Your task to perform on an android device: What's a good restaurant in Seattle? Image 0: 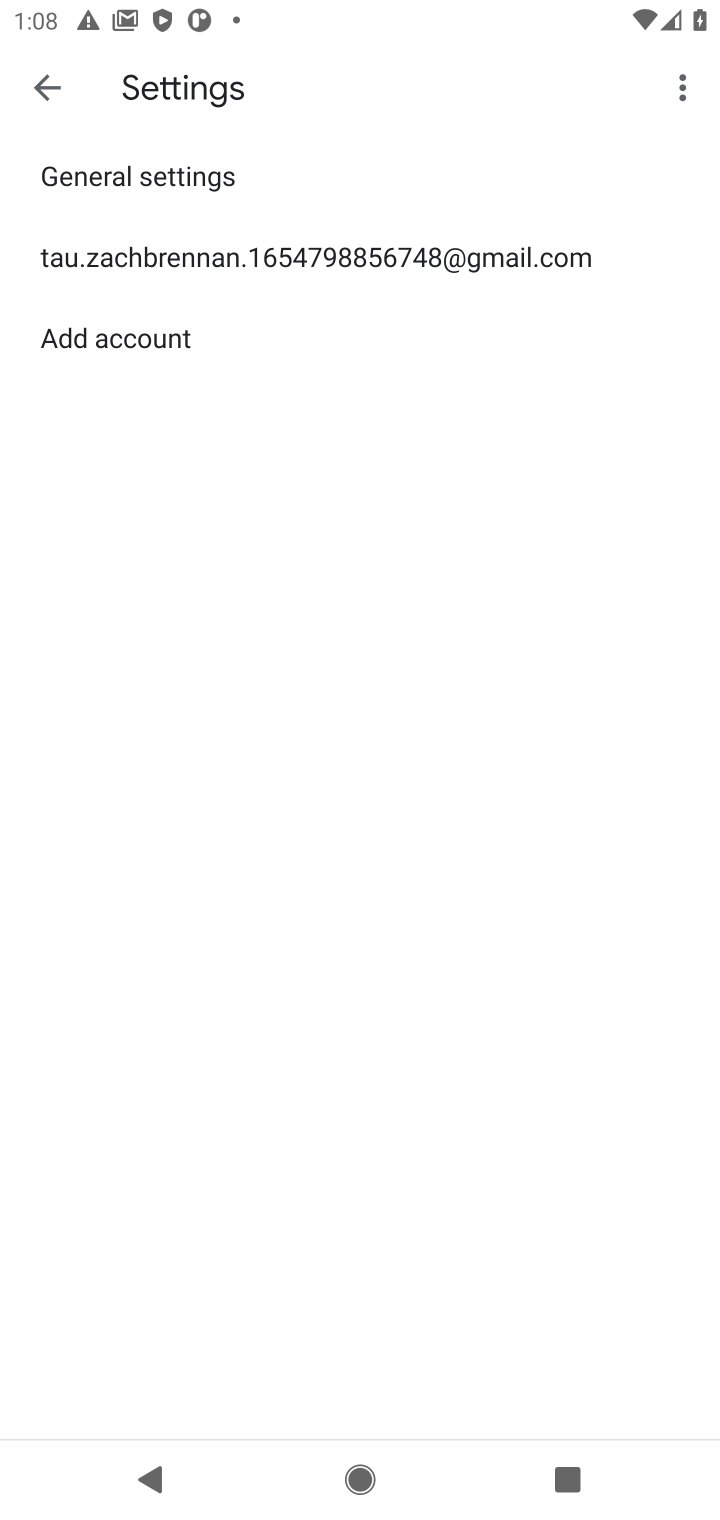
Step 0: press home button
Your task to perform on an android device: What's a good restaurant in Seattle? Image 1: 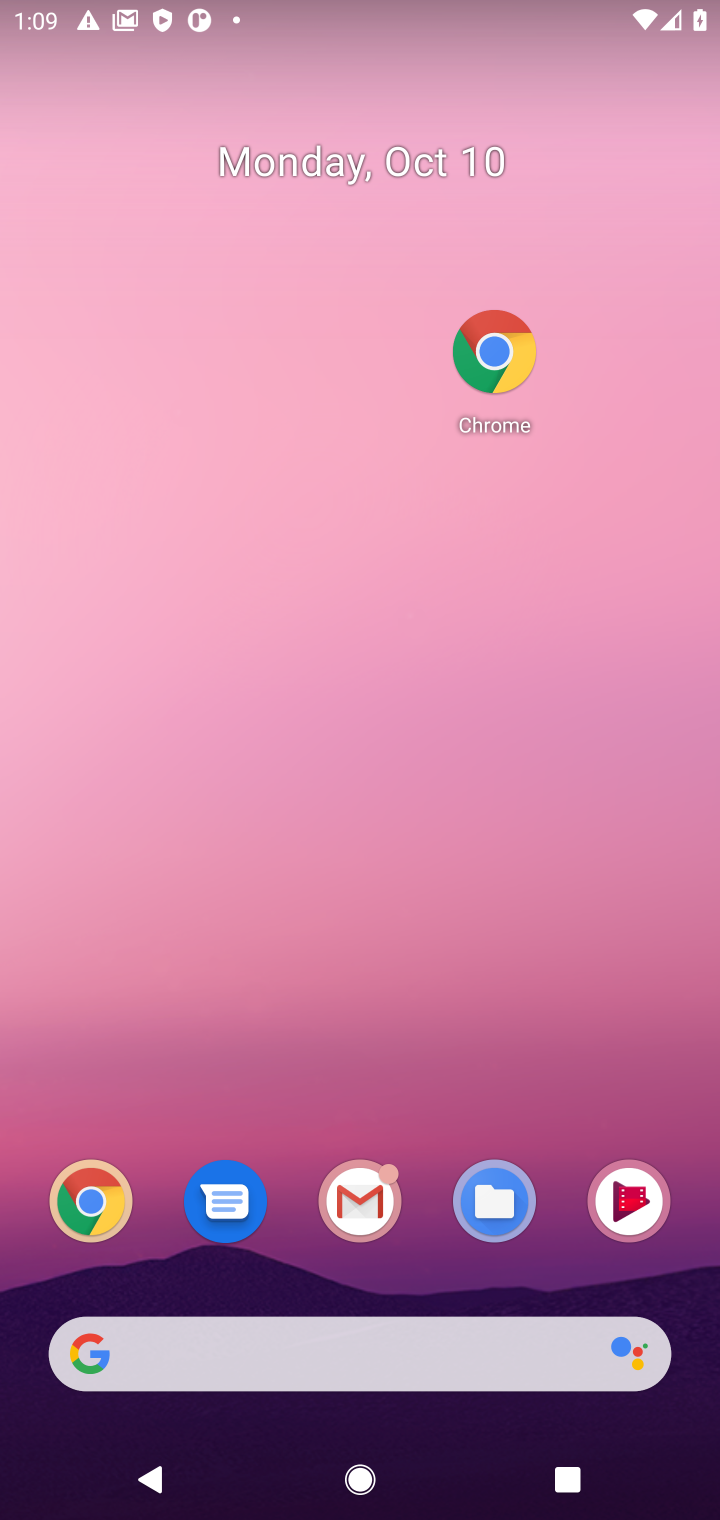
Step 1: click (506, 346)
Your task to perform on an android device: What's a good restaurant in Seattle? Image 2: 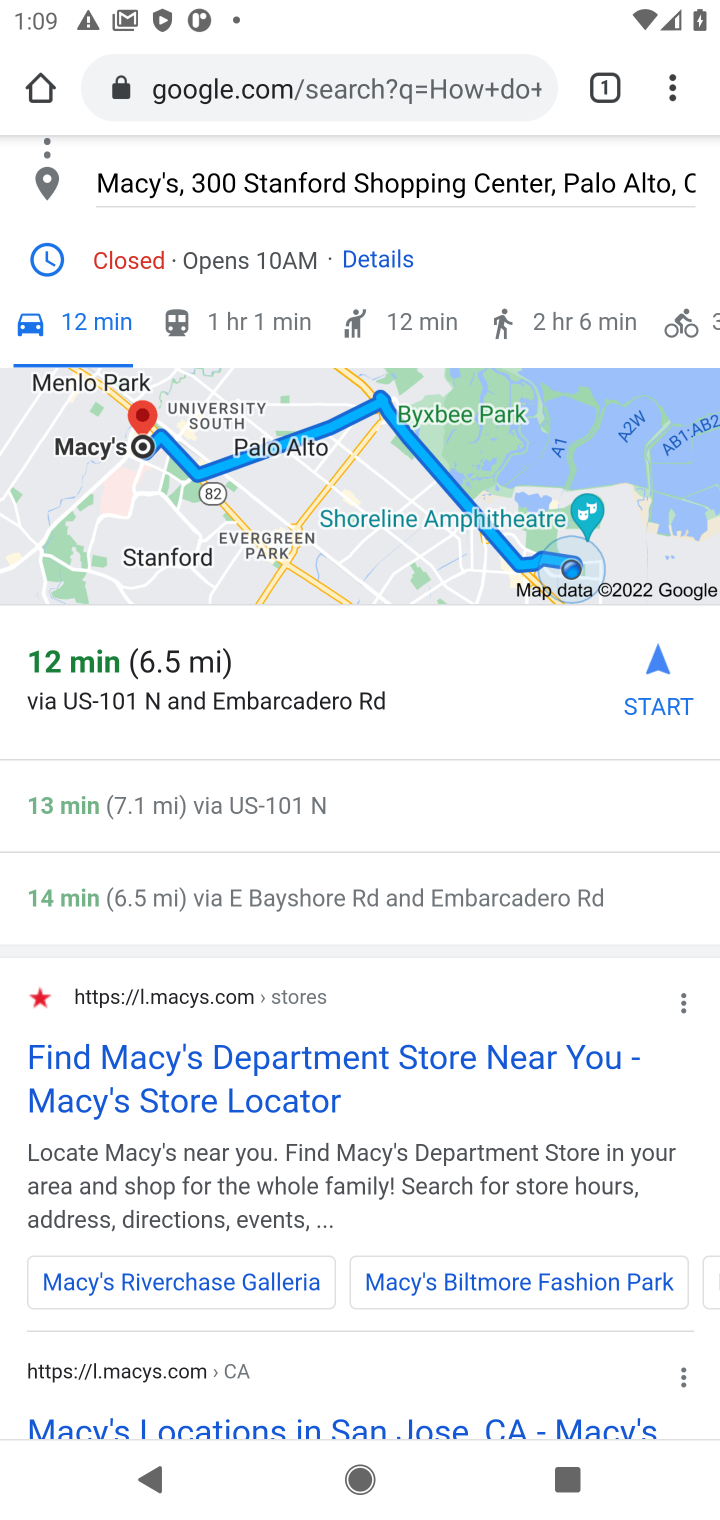
Step 2: click (344, 85)
Your task to perform on an android device: What's a good restaurant in Seattle? Image 3: 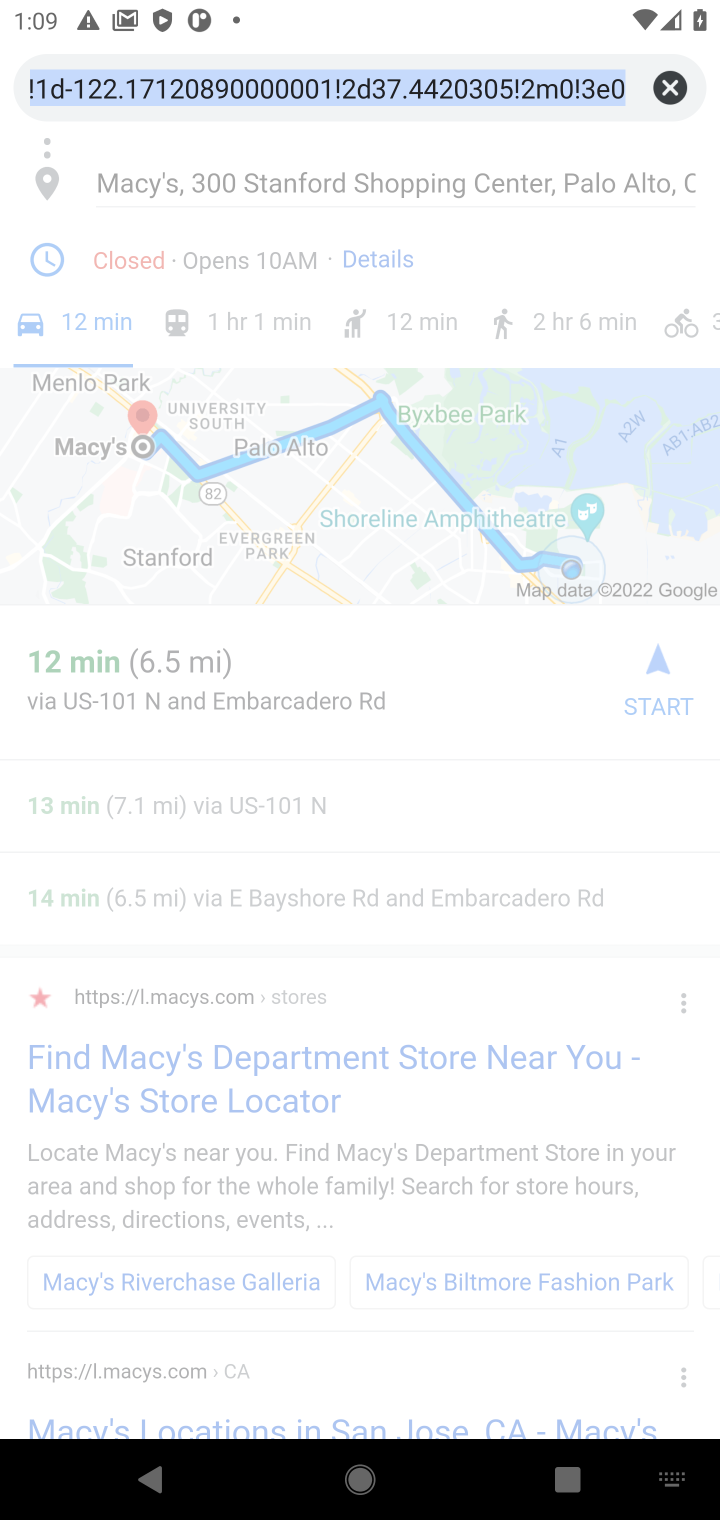
Step 3: click (663, 86)
Your task to perform on an android device: What's a good restaurant in Seattle? Image 4: 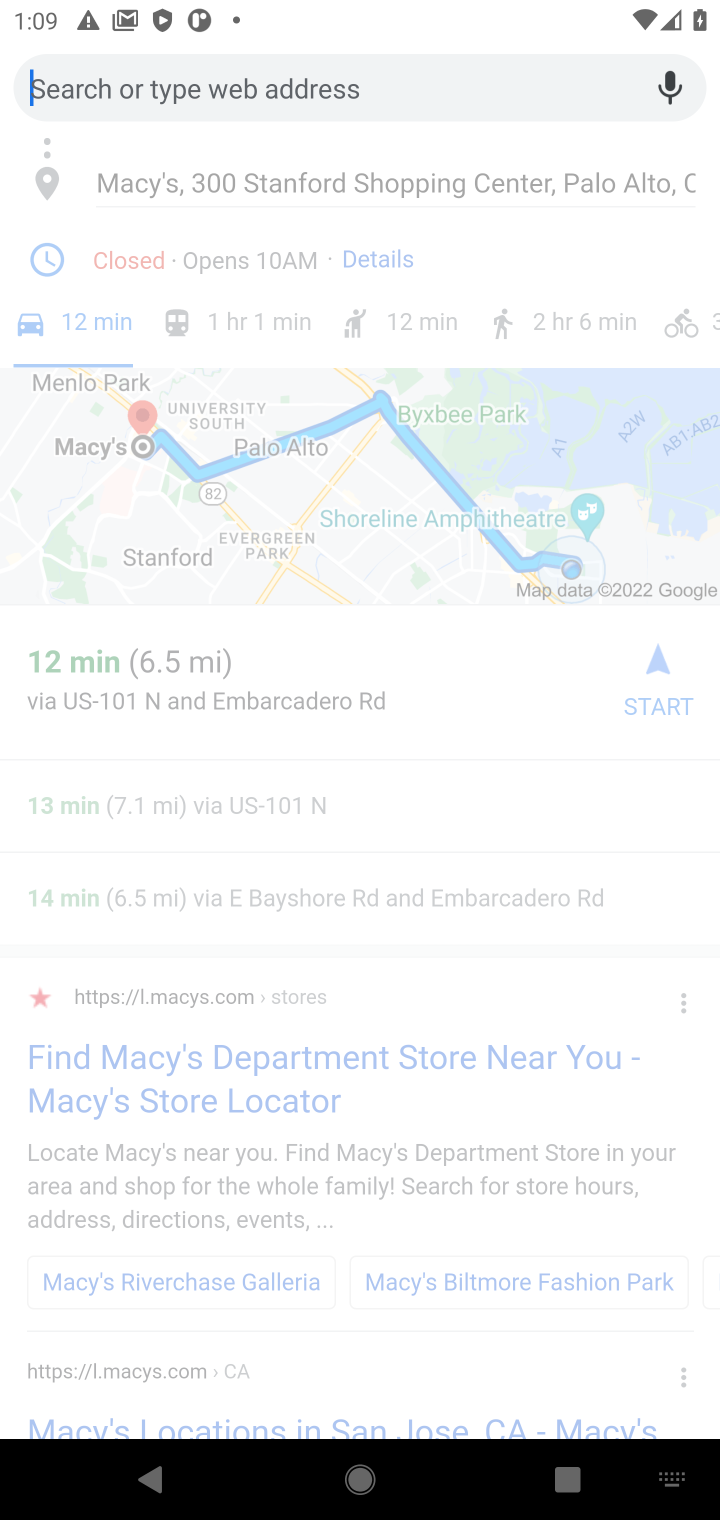
Step 4: type "What's a good restaurant in Seattle?"
Your task to perform on an android device: What's a good restaurant in Seattle? Image 5: 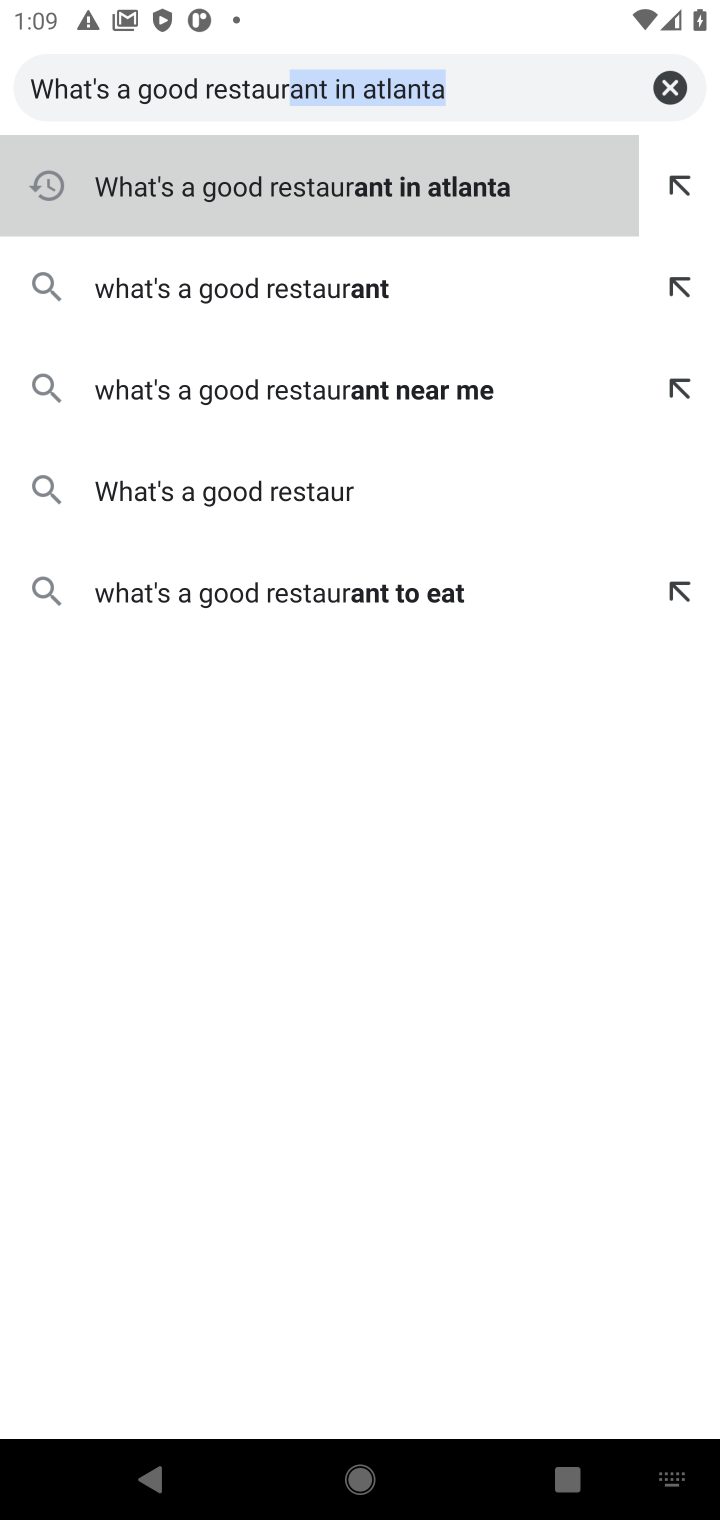
Step 5: click (282, 90)
Your task to perform on an android device: What's a good restaurant in Seattle? Image 6: 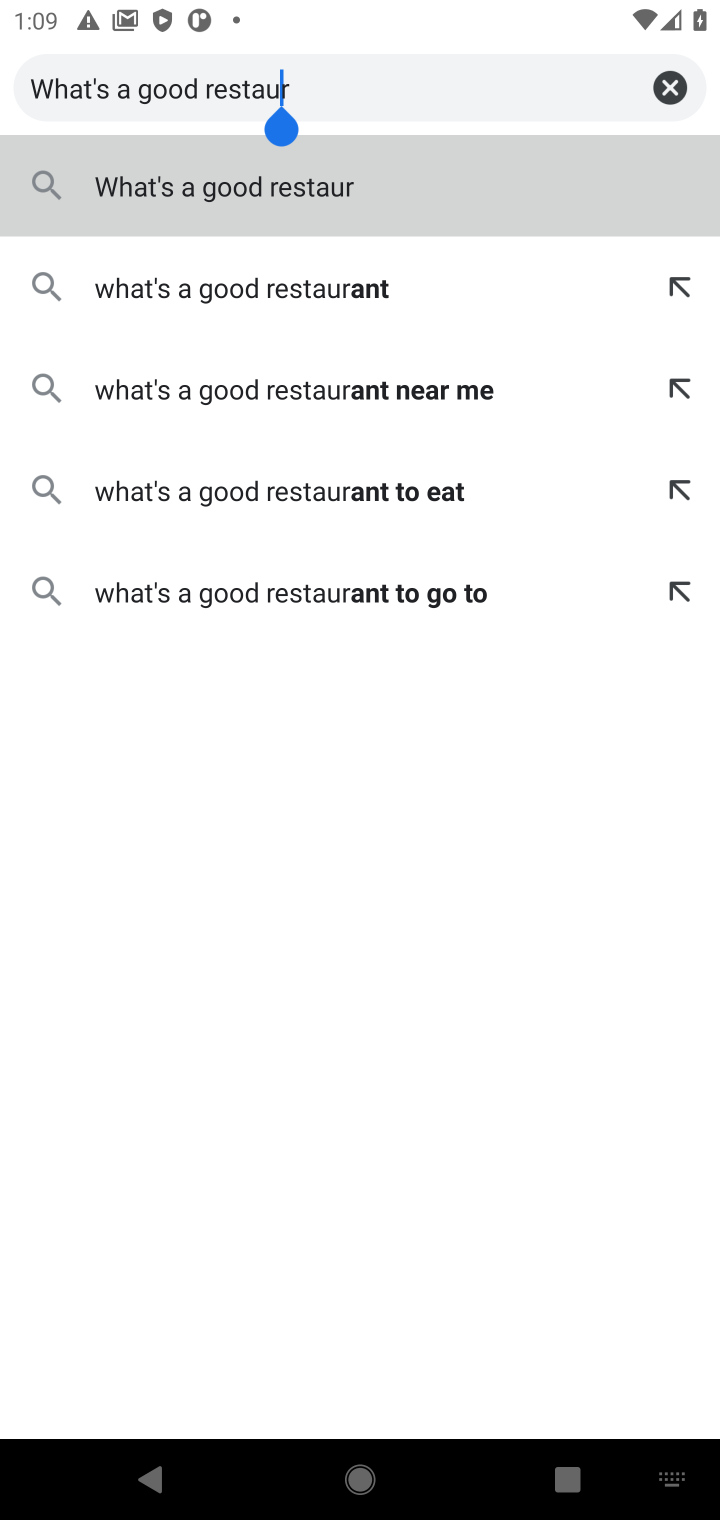
Step 6: click (311, 98)
Your task to perform on an android device: What's a good restaurant in Seattle? Image 7: 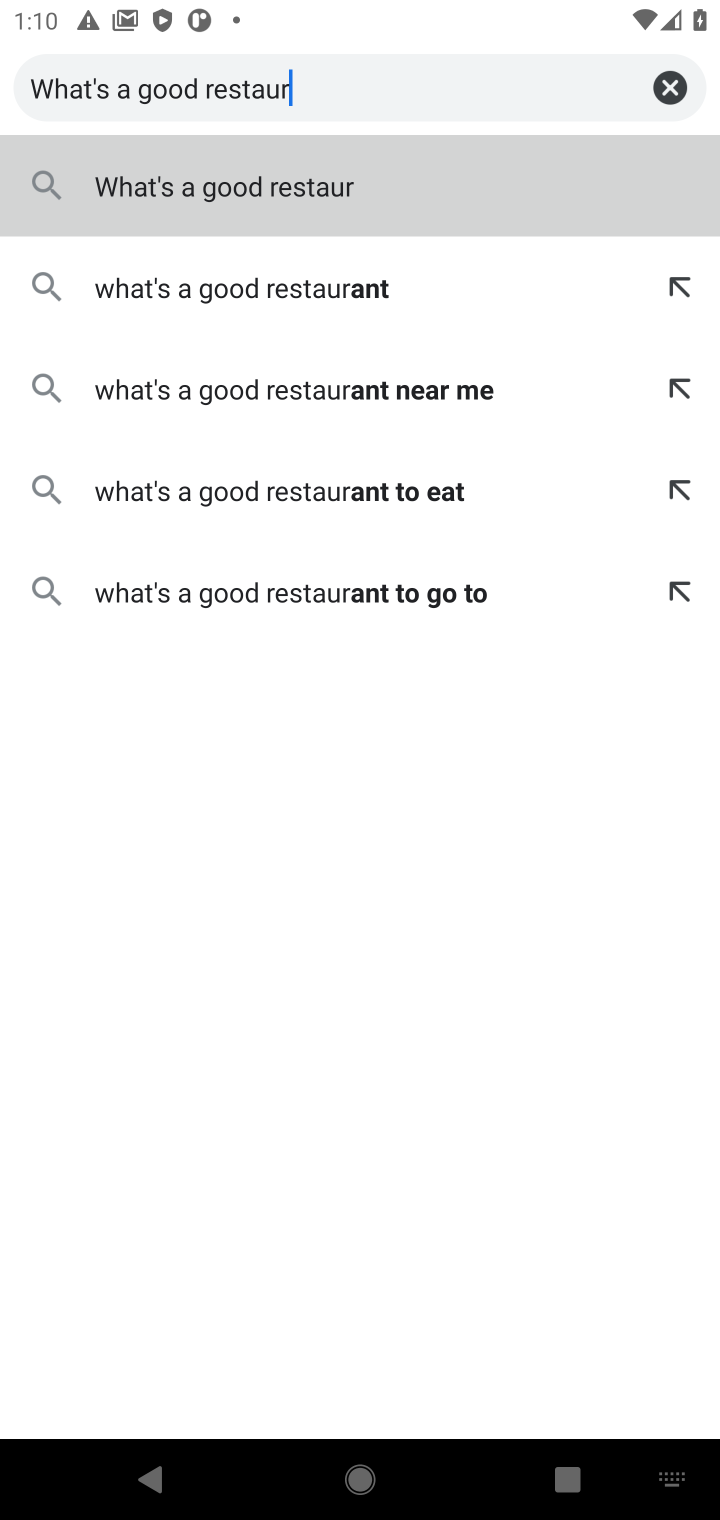
Step 7: type "ant in seattle?"
Your task to perform on an android device: What's a good restaurant in Seattle? Image 8: 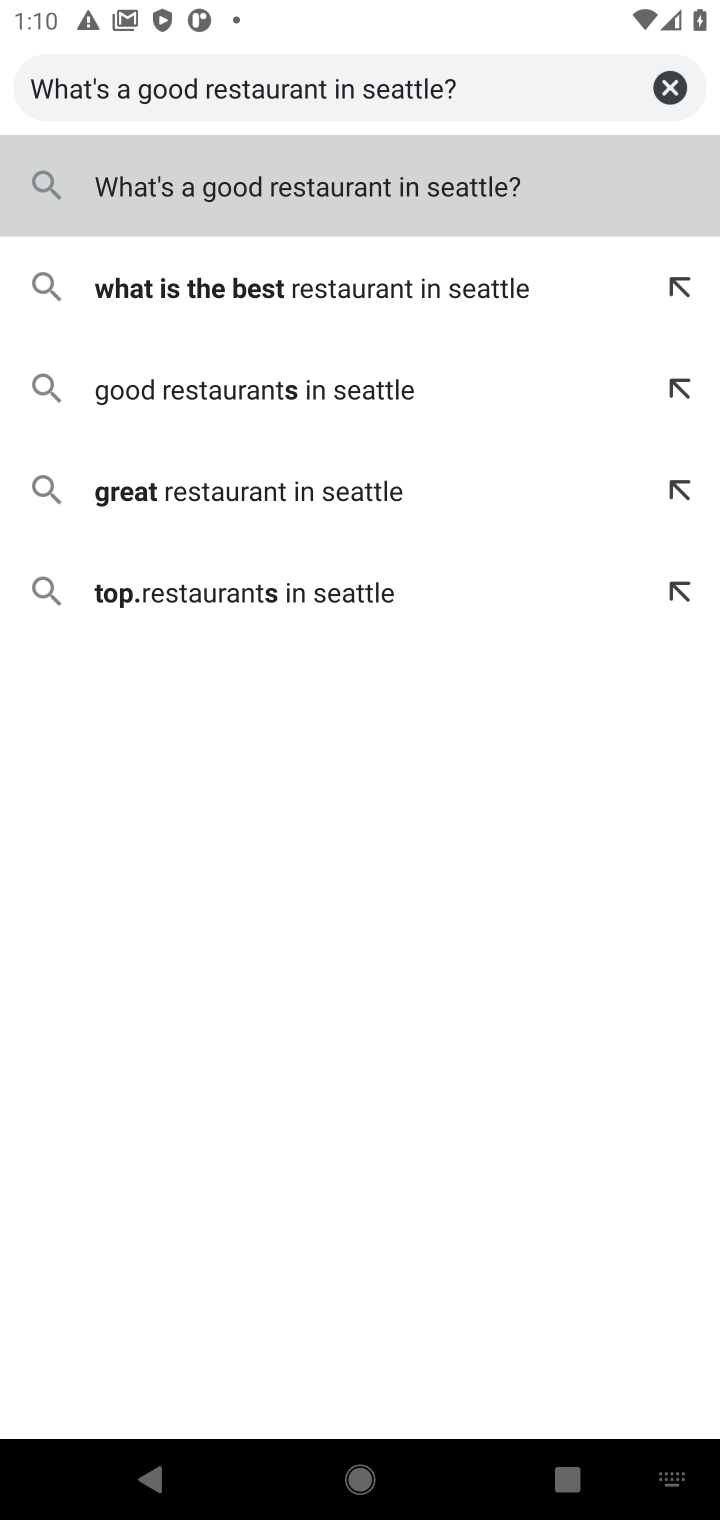
Step 8: click (344, 193)
Your task to perform on an android device: What's a good restaurant in Seattle? Image 9: 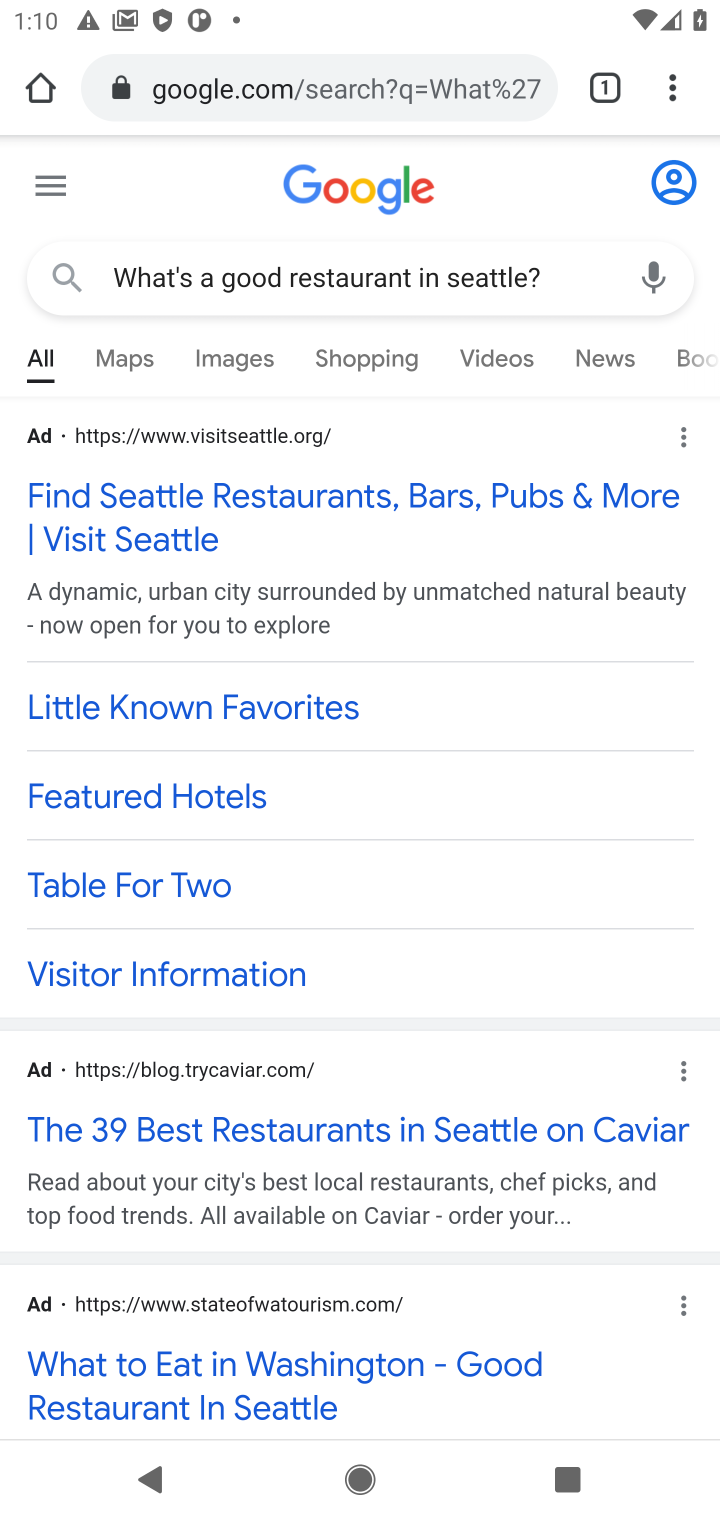
Step 9: click (238, 1139)
Your task to perform on an android device: What's a good restaurant in Seattle? Image 10: 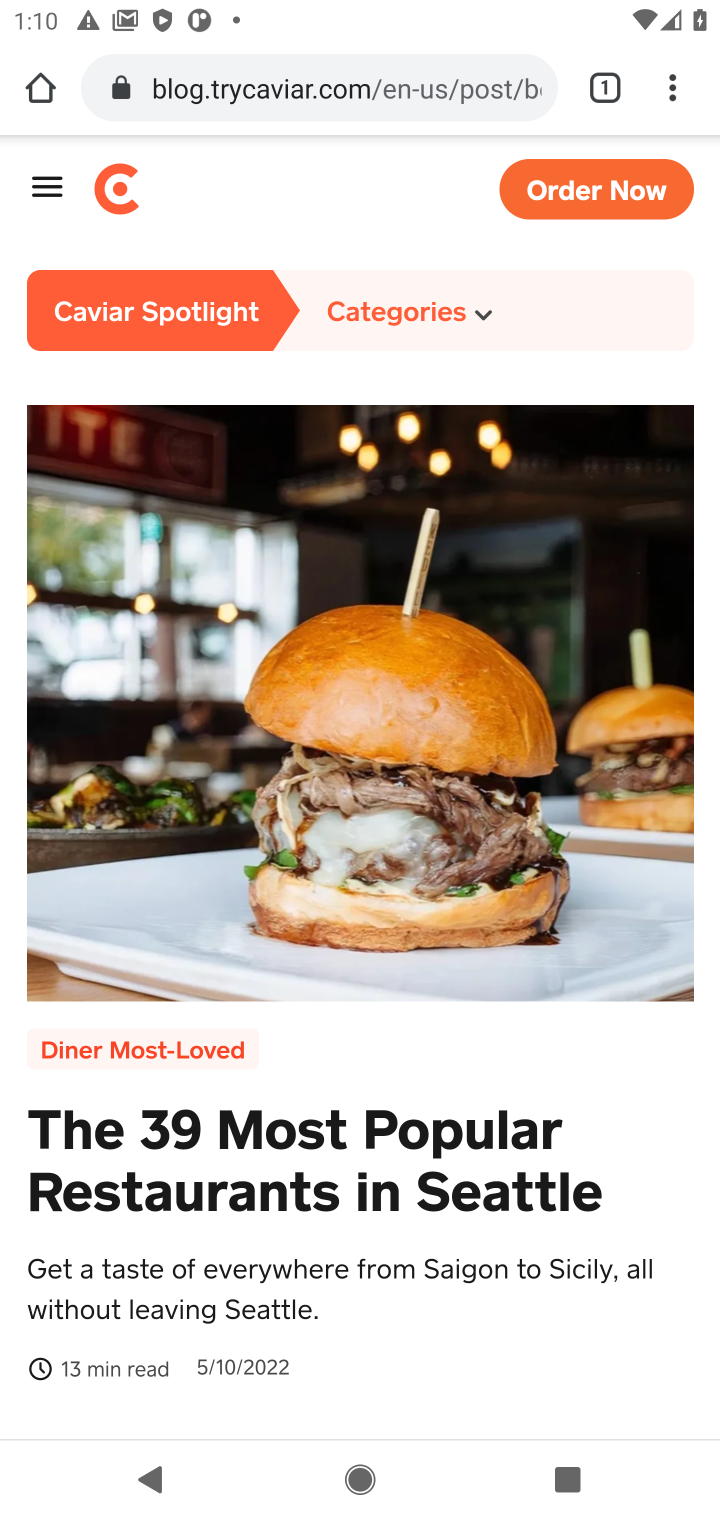
Step 10: task complete